Your task to perform on an android device: Go to sound settings Image 0: 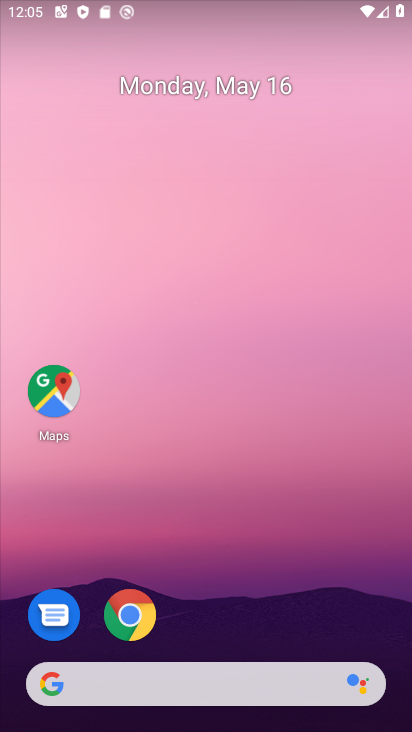
Step 0: drag from (328, 636) to (290, 32)
Your task to perform on an android device: Go to sound settings Image 1: 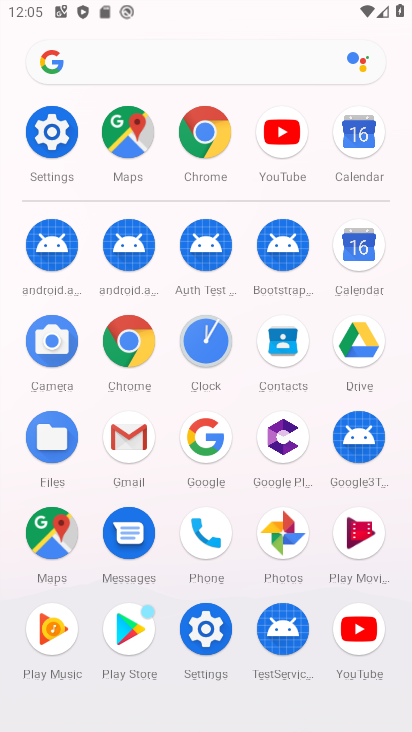
Step 1: click (55, 138)
Your task to perform on an android device: Go to sound settings Image 2: 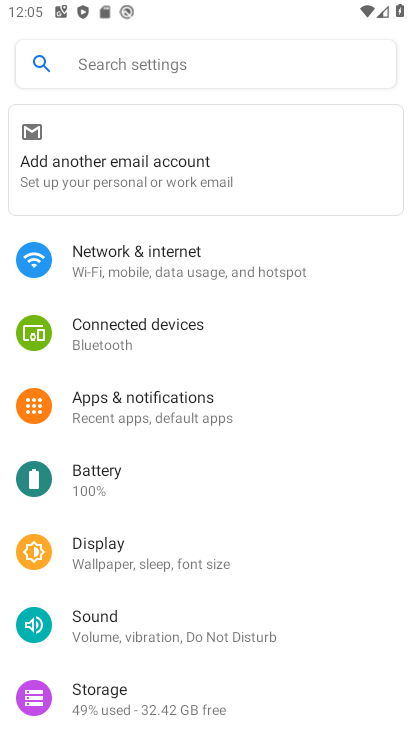
Step 2: click (191, 651)
Your task to perform on an android device: Go to sound settings Image 3: 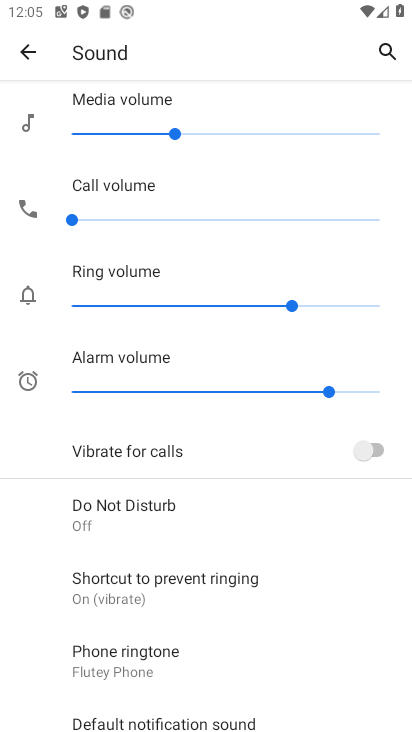
Step 3: task complete